Your task to perform on an android device: Open Amazon Image 0: 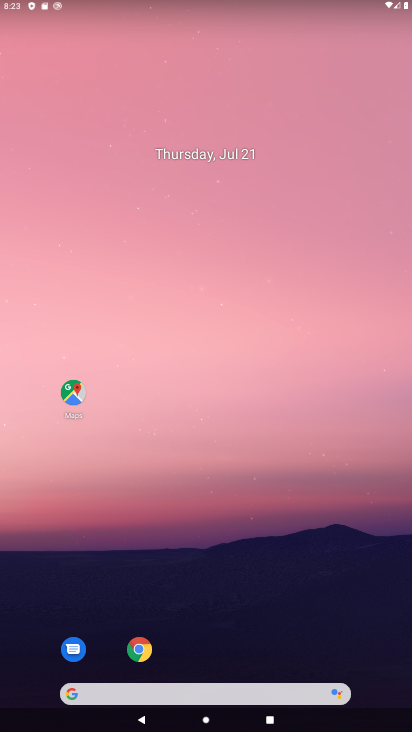
Step 0: click (145, 658)
Your task to perform on an android device: Open Amazon Image 1: 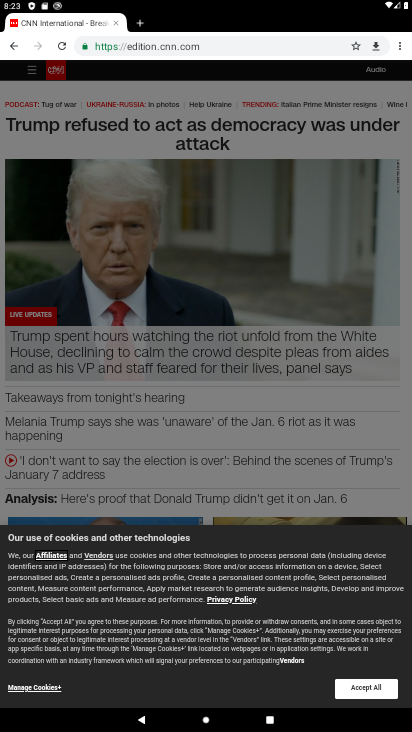
Step 1: click (139, 24)
Your task to perform on an android device: Open Amazon Image 2: 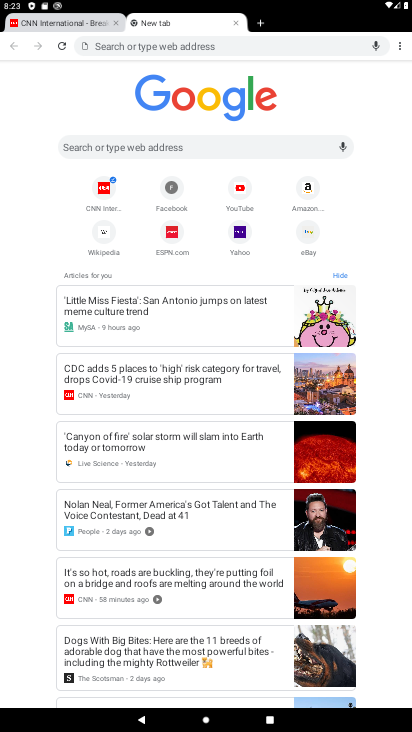
Step 2: click (306, 186)
Your task to perform on an android device: Open Amazon Image 3: 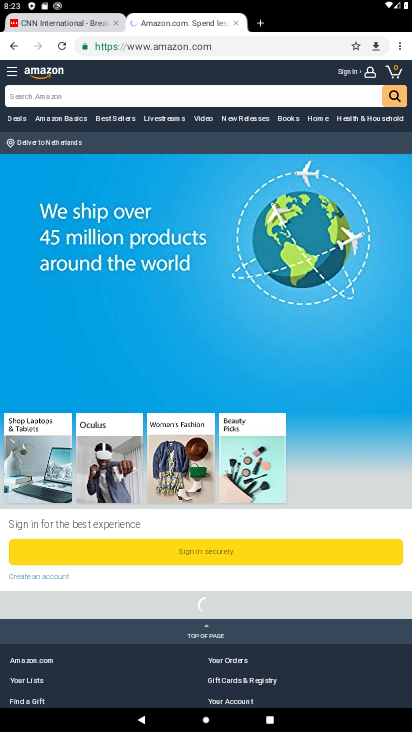
Step 3: task complete